Your task to perform on an android device: find which apps use the phone's location Image 0: 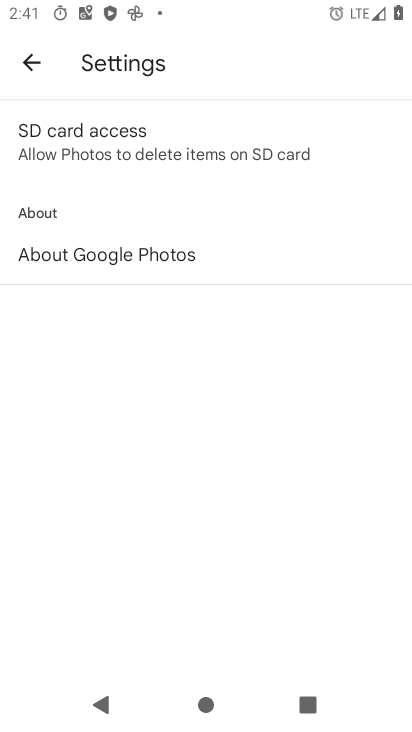
Step 0: press home button
Your task to perform on an android device: find which apps use the phone's location Image 1: 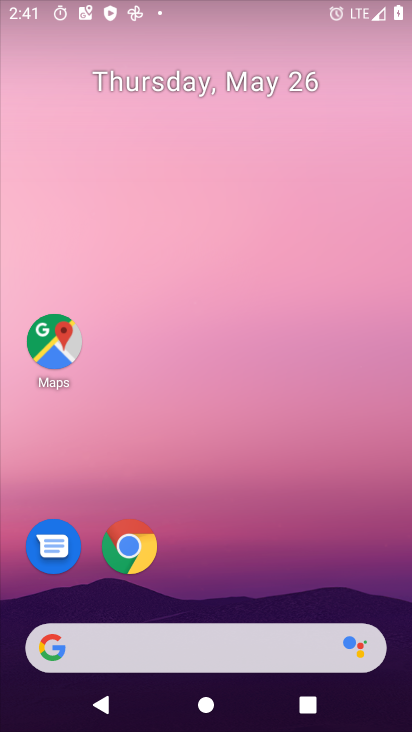
Step 1: drag from (166, 588) to (229, 85)
Your task to perform on an android device: find which apps use the phone's location Image 2: 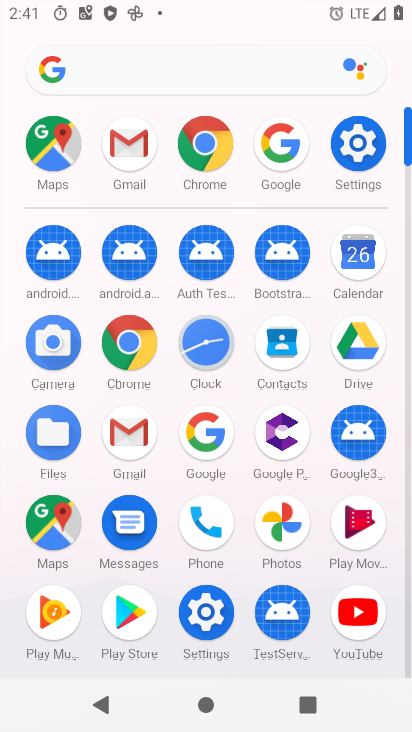
Step 2: click (355, 146)
Your task to perform on an android device: find which apps use the phone's location Image 3: 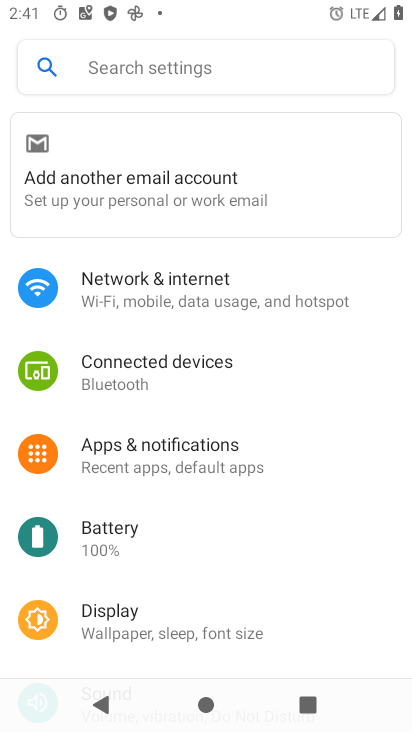
Step 3: drag from (155, 548) to (238, 176)
Your task to perform on an android device: find which apps use the phone's location Image 4: 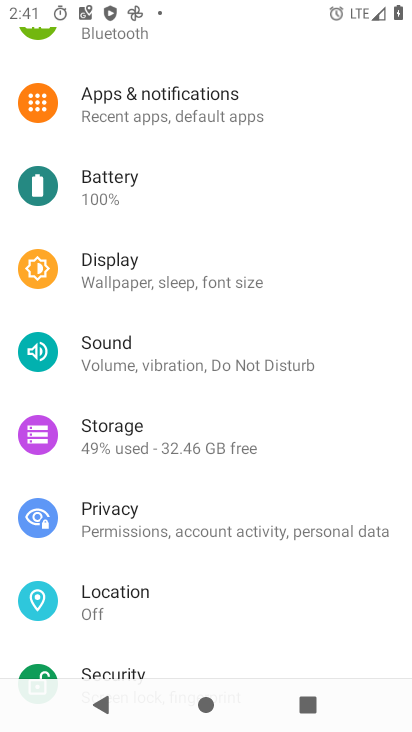
Step 4: click (161, 584)
Your task to perform on an android device: find which apps use the phone's location Image 5: 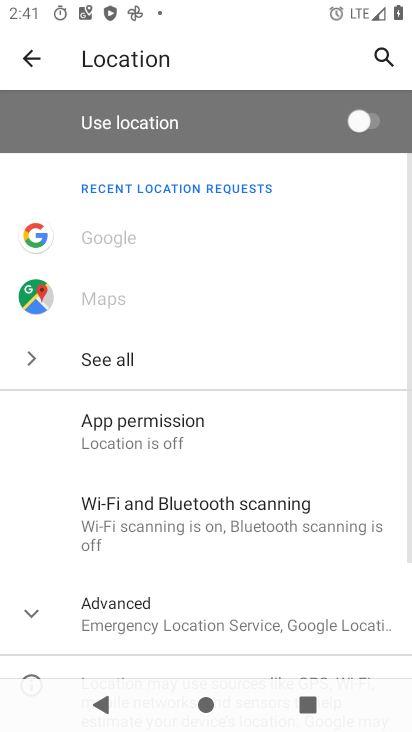
Step 5: drag from (205, 615) to (205, 421)
Your task to perform on an android device: find which apps use the phone's location Image 6: 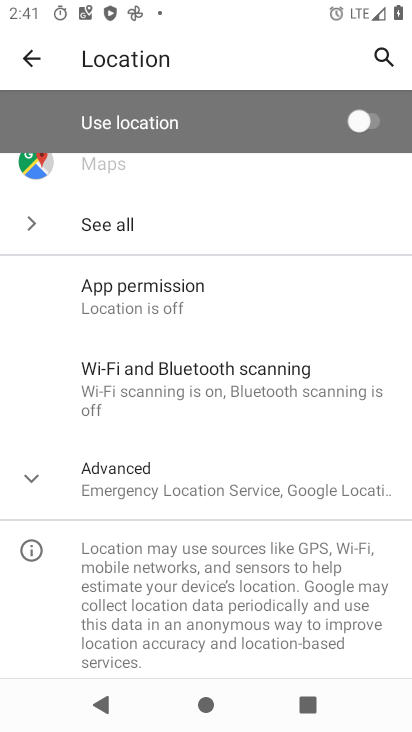
Step 6: click (159, 302)
Your task to perform on an android device: find which apps use the phone's location Image 7: 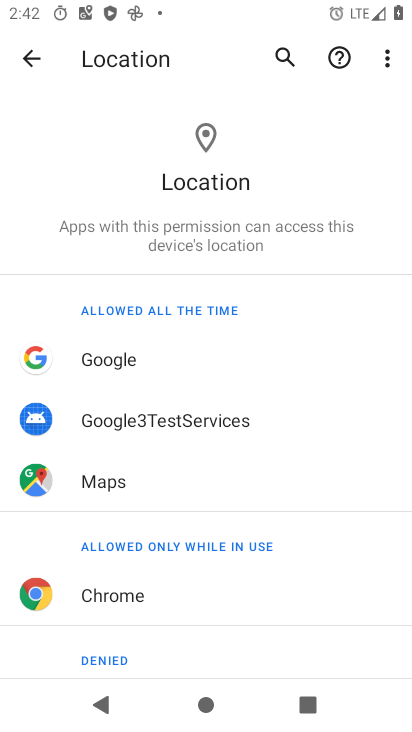
Step 7: task complete